Your task to perform on an android device: Set the phone to "Do not disturb". Image 0: 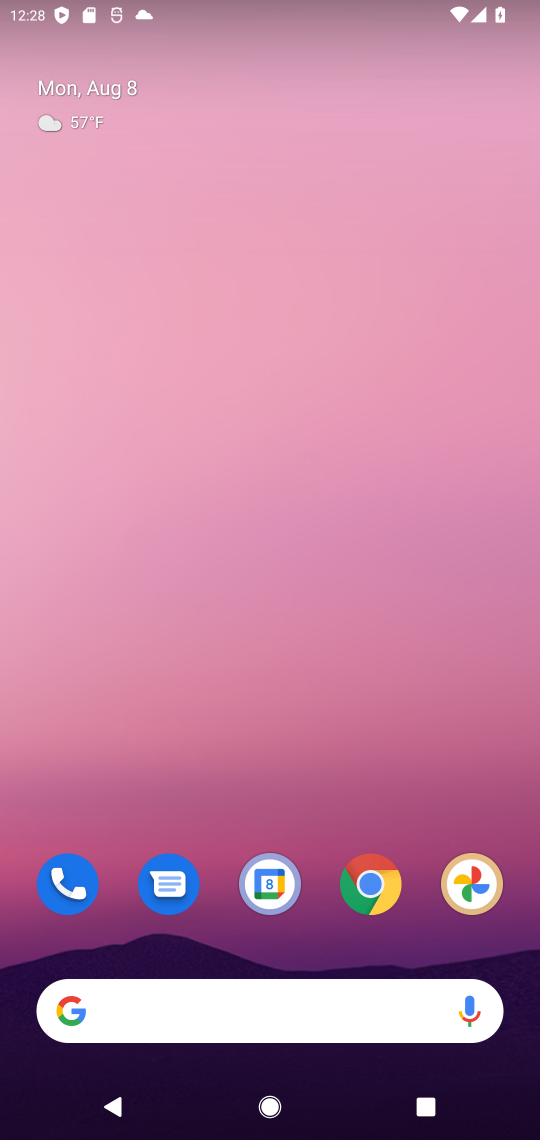
Step 0: drag from (83, 1043) to (361, 305)
Your task to perform on an android device: Set the phone to "Do not disturb". Image 1: 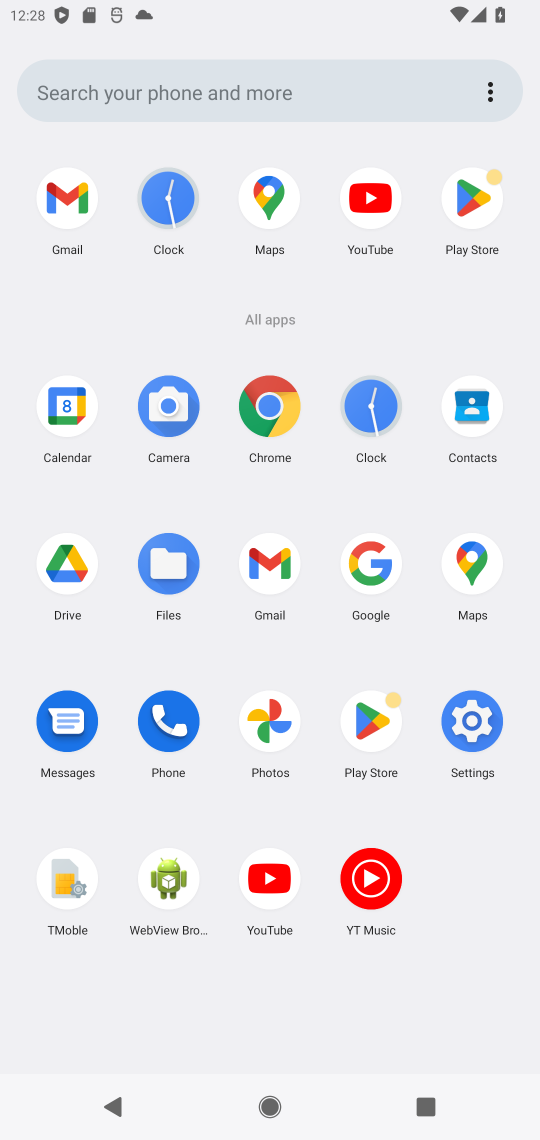
Step 1: click (452, 718)
Your task to perform on an android device: Set the phone to "Do not disturb". Image 2: 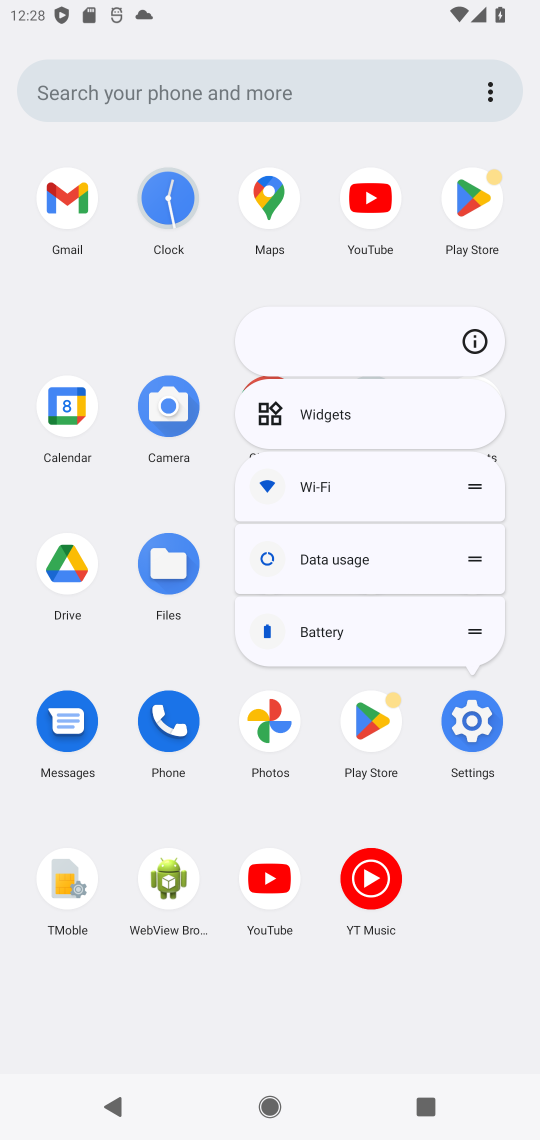
Step 2: click (452, 718)
Your task to perform on an android device: Set the phone to "Do not disturb". Image 3: 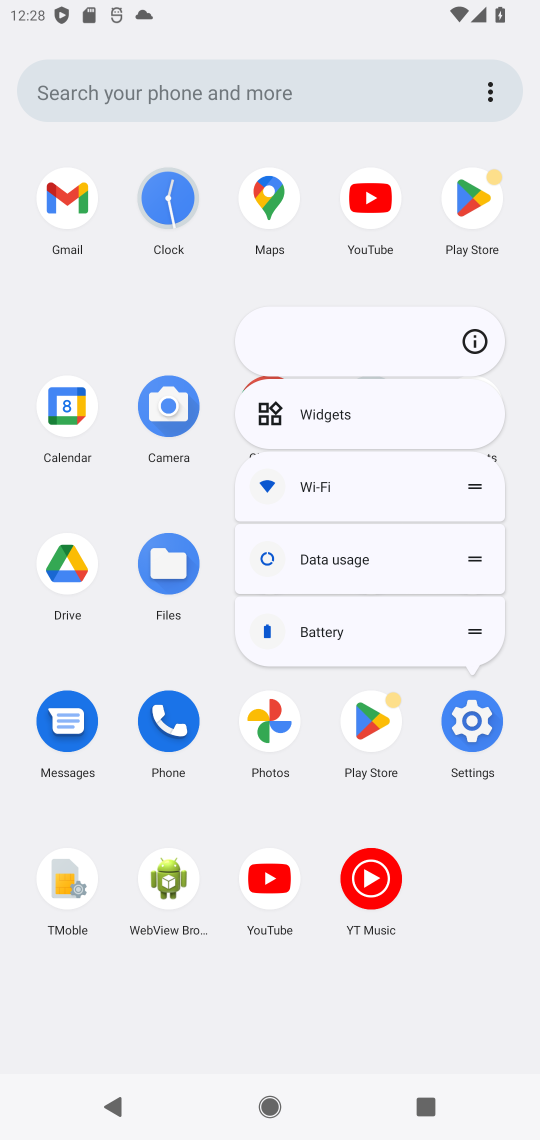
Step 3: click (452, 718)
Your task to perform on an android device: Set the phone to "Do not disturb". Image 4: 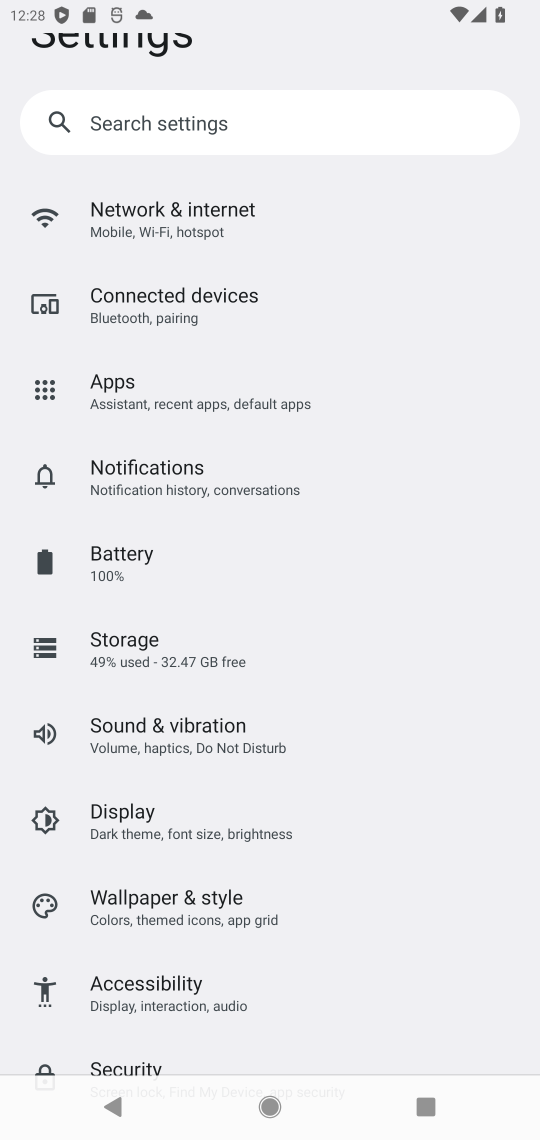
Step 4: click (225, 742)
Your task to perform on an android device: Set the phone to "Do not disturb". Image 5: 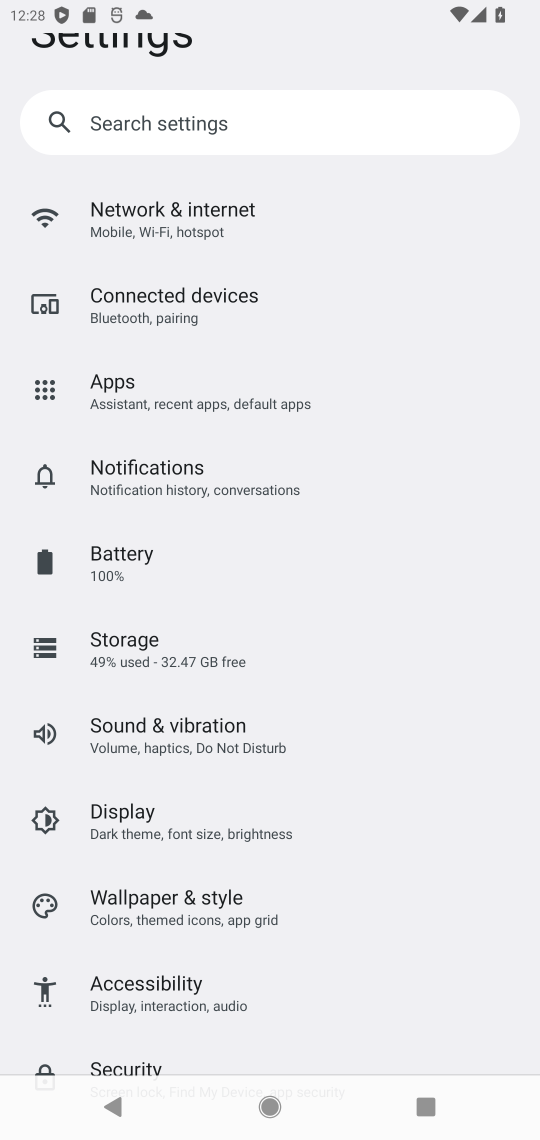
Step 5: click (225, 742)
Your task to perform on an android device: Set the phone to "Do not disturb". Image 6: 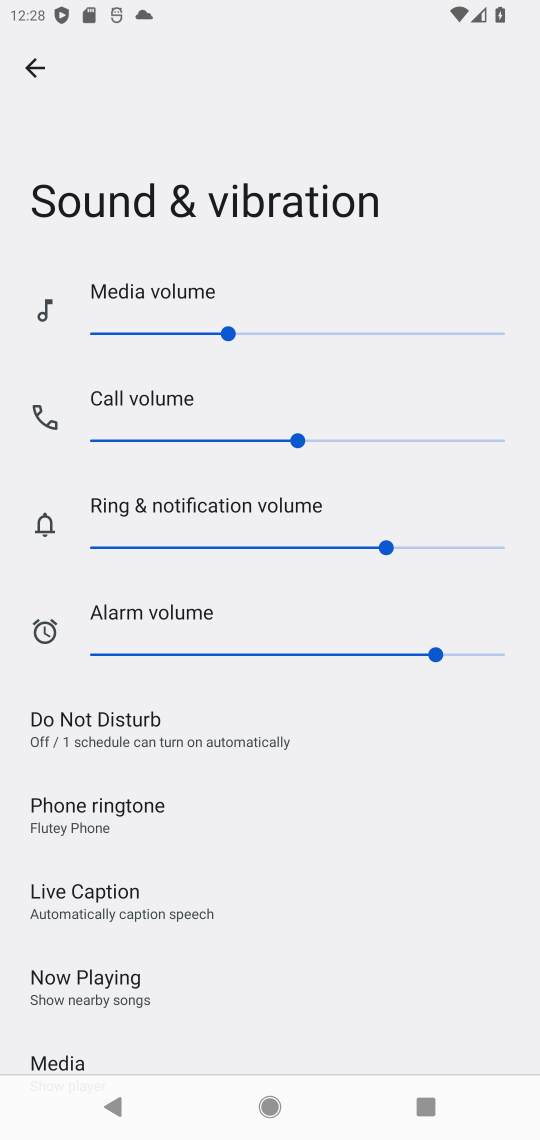
Step 6: task complete